Your task to perform on an android device: Clear the cart on newegg.com. Add bose quietcomfort 35 to the cart on newegg.com Image 0: 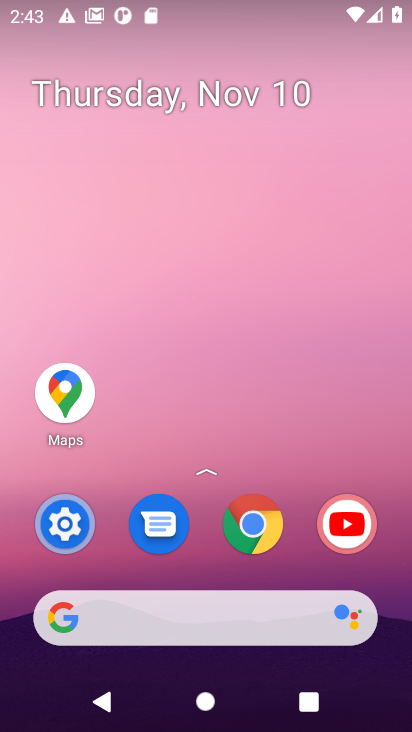
Step 0: click (256, 531)
Your task to perform on an android device: Clear the cart on newegg.com. Add bose quietcomfort 35 to the cart on newegg.com Image 1: 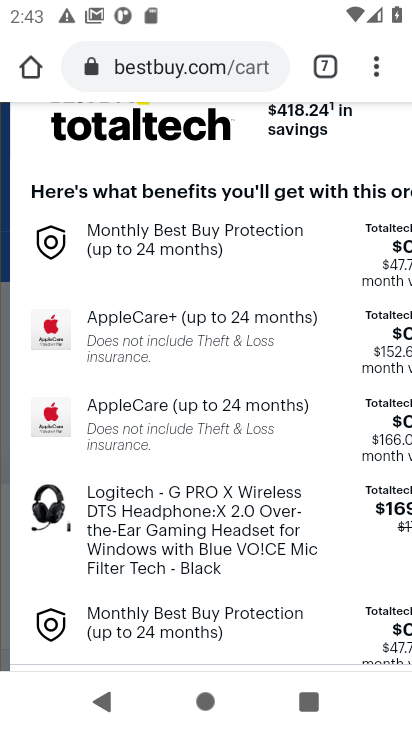
Step 1: click (323, 69)
Your task to perform on an android device: Clear the cart on newegg.com. Add bose quietcomfort 35 to the cart on newegg.com Image 2: 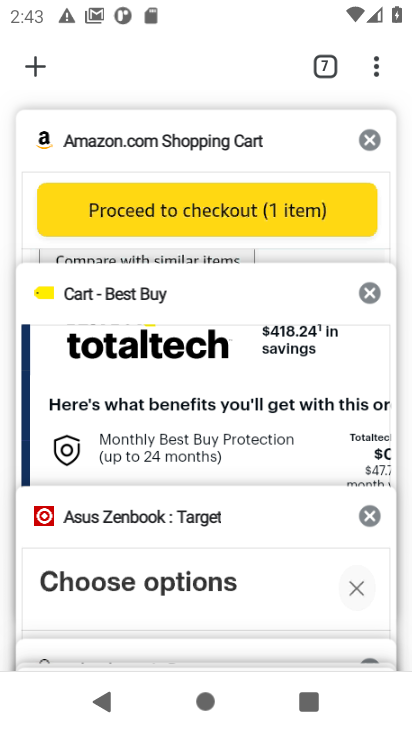
Step 2: drag from (189, 649) to (278, 366)
Your task to perform on an android device: Clear the cart on newegg.com. Add bose quietcomfort 35 to the cart on newegg.com Image 3: 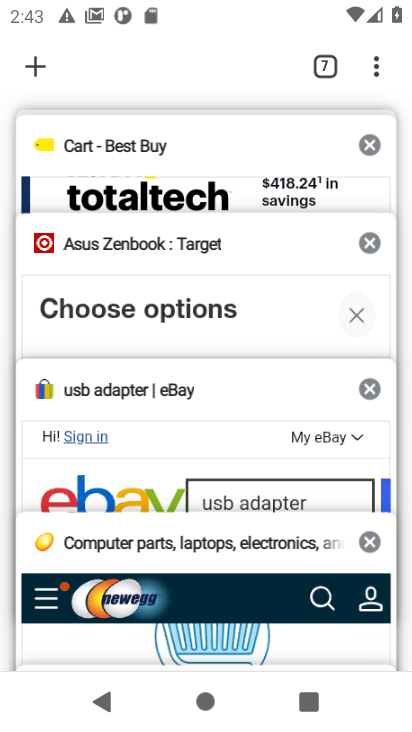
Step 3: drag from (243, 603) to (282, 505)
Your task to perform on an android device: Clear the cart on newegg.com. Add bose quietcomfort 35 to the cart on newegg.com Image 4: 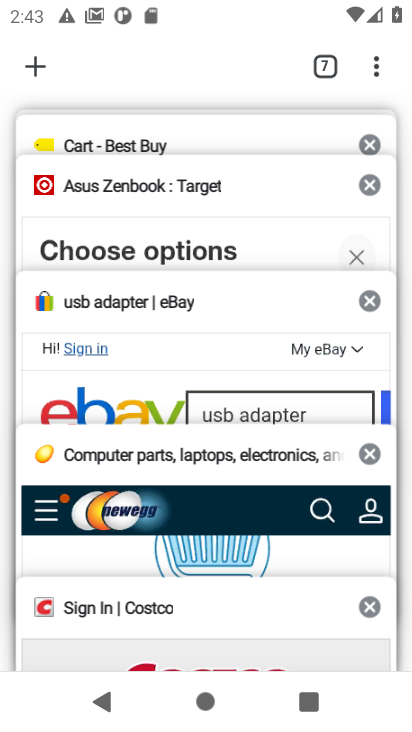
Step 4: click (259, 488)
Your task to perform on an android device: Clear the cart on newegg.com. Add bose quietcomfort 35 to the cart on newegg.com Image 5: 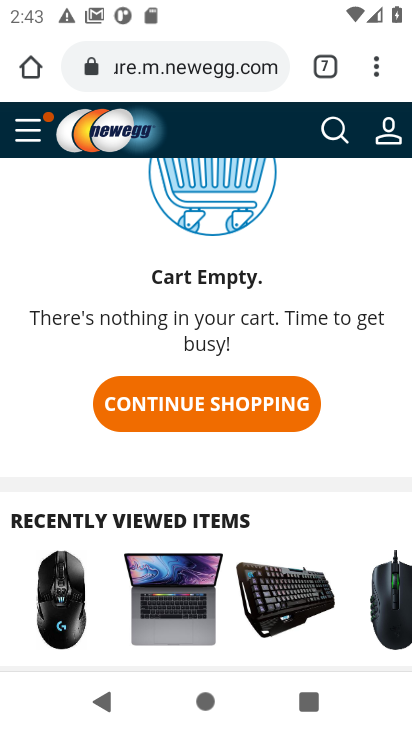
Step 5: click (333, 129)
Your task to perform on an android device: Clear the cart on newegg.com. Add bose quietcomfort 35 to the cart on newegg.com Image 6: 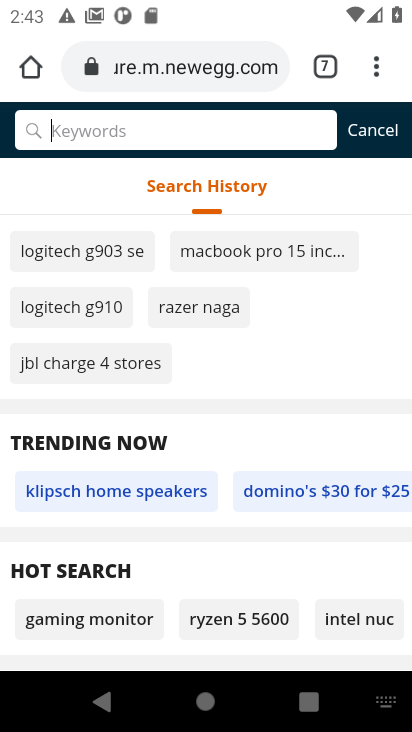
Step 6: type "bose quietcomfort 35"
Your task to perform on an android device: Clear the cart on newegg.com. Add bose quietcomfort 35 to the cart on newegg.com Image 7: 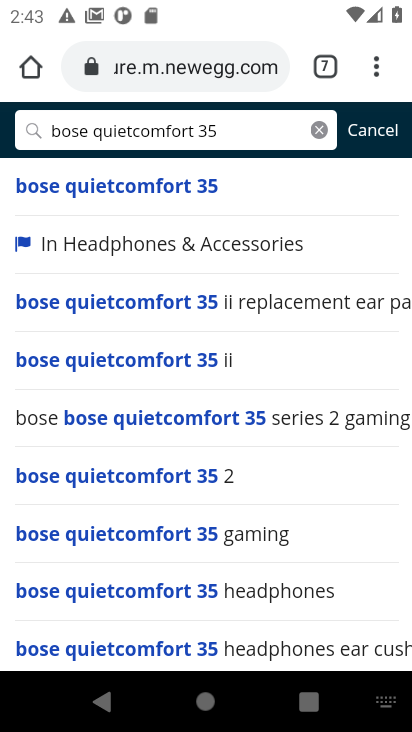
Step 7: click (154, 183)
Your task to perform on an android device: Clear the cart on newegg.com. Add bose quietcomfort 35 to the cart on newegg.com Image 8: 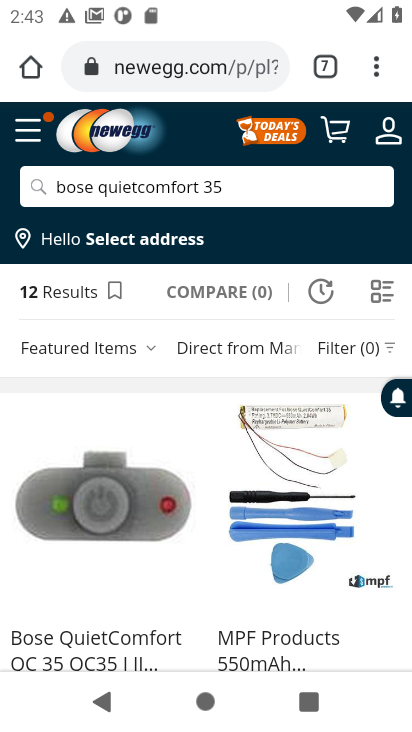
Step 8: click (133, 638)
Your task to perform on an android device: Clear the cart on newegg.com. Add bose quietcomfort 35 to the cart on newegg.com Image 9: 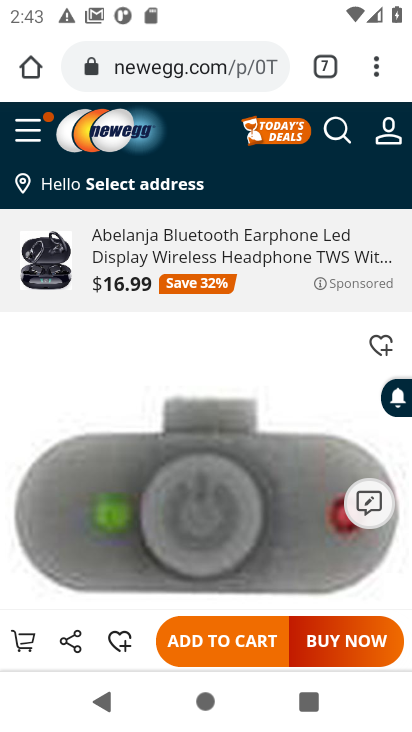
Step 9: click (231, 640)
Your task to perform on an android device: Clear the cart on newegg.com. Add bose quietcomfort 35 to the cart on newegg.com Image 10: 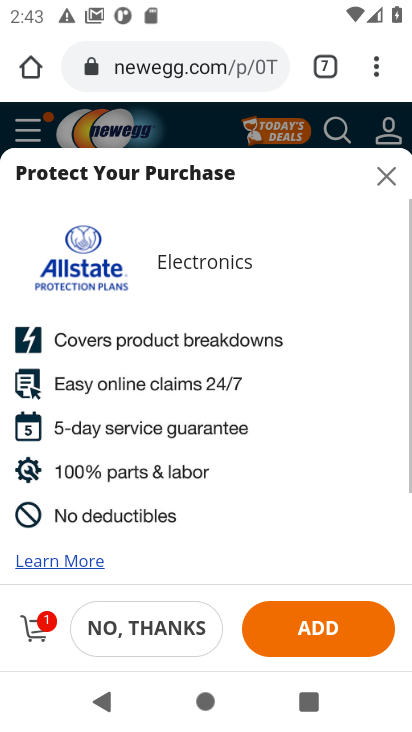
Step 10: task complete